Your task to perform on an android device: What's the weather going to be this weekend? Image 0: 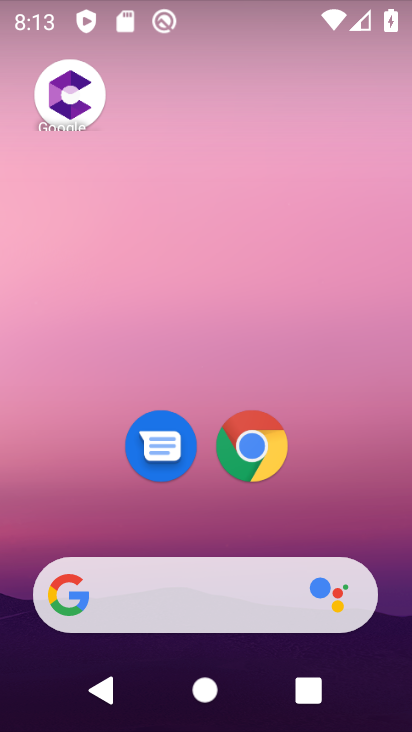
Step 0: click (193, 602)
Your task to perform on an android device: What's the weather going to be this weekend? Image 1: 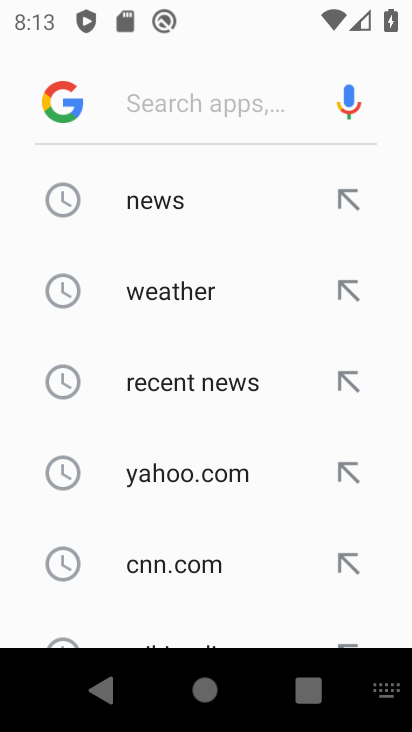
Step 1: click (223, 294)
Your task to perform on an android device: What's the weather going to be this weekend? Image 2: 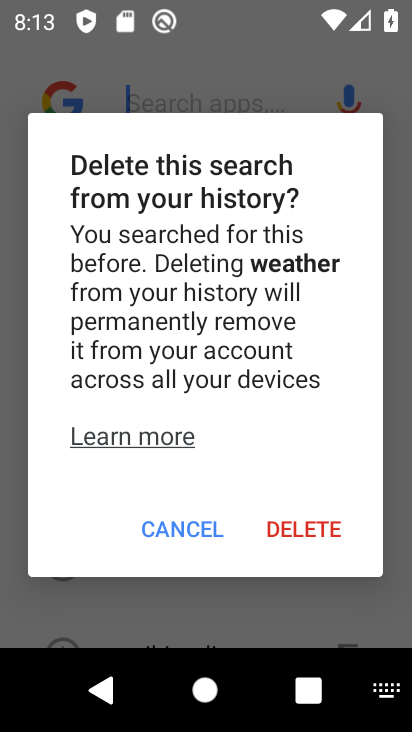
Step 2: click (196, 524)
Your task to perform on an android device: What's the weather going to be this weekend? Image 3: 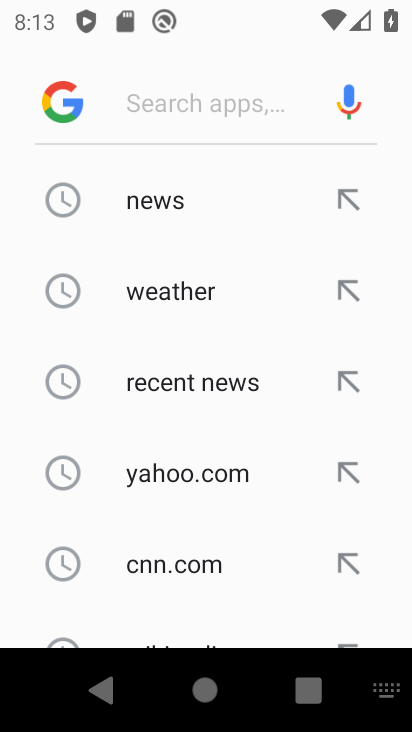
Step 3: click (186, 310)
Your task to perform on an android device: What's the weather going to be this weekend? Image 4: 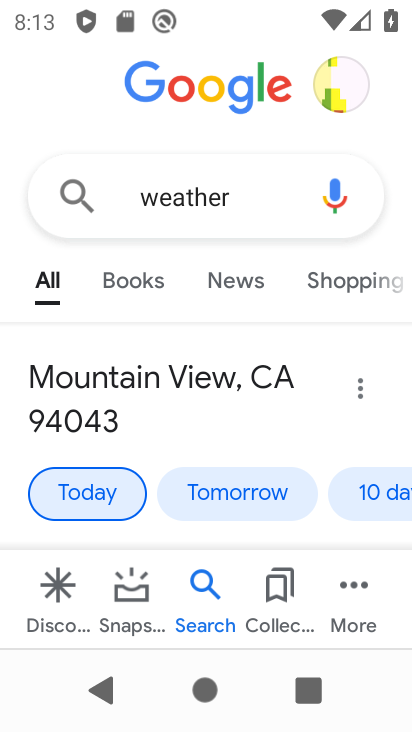
Step 4: click (383, 486)
Your task to perform on an android device: What's the weather going to be this weekend? Image 5: 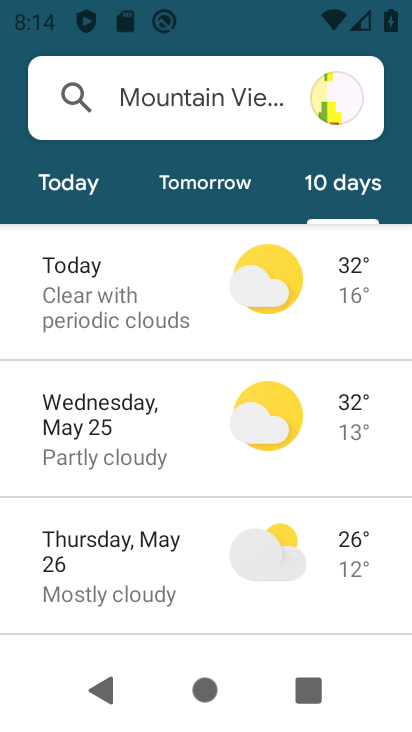
Step 5: task complete